Your task to perform on an android device: check battery use Image 0: 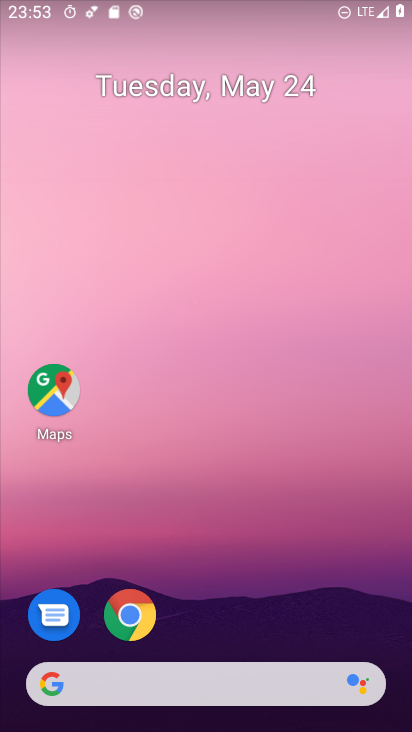
Step 0: drag from (286, 706) to (320, 0)
Your task to perform on an android device: check battery use Image 1: 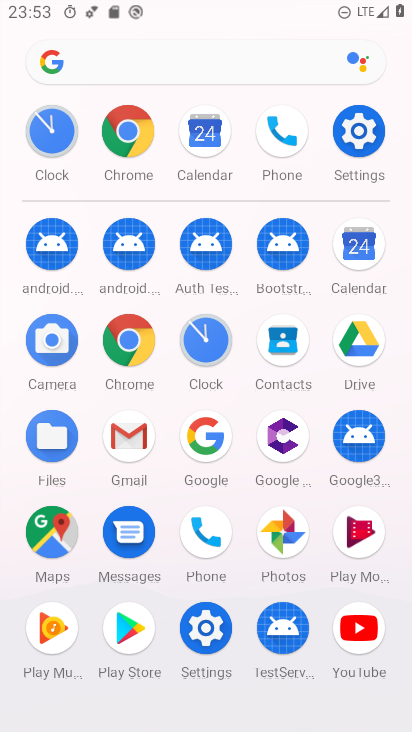
Step 1: click (357, 127)
Your task to perform on an android device: check battery use Image 2: 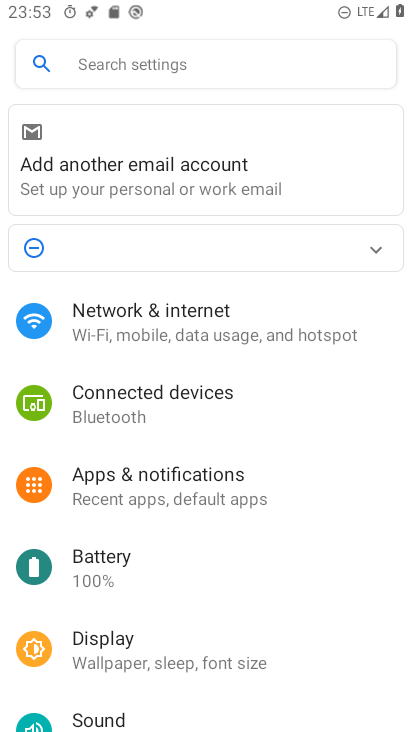
Step 2: click (168, 571)
Your task to perform on an android device: check battery use Image 3: 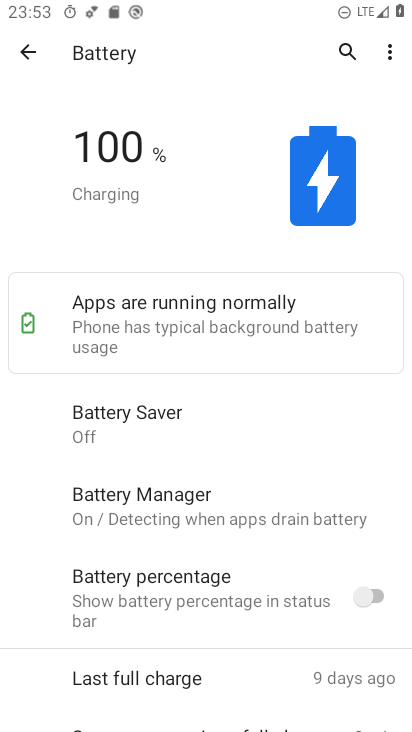
Step 3: task complete